Your task to perform on an android device: Open sound settings Image 0: 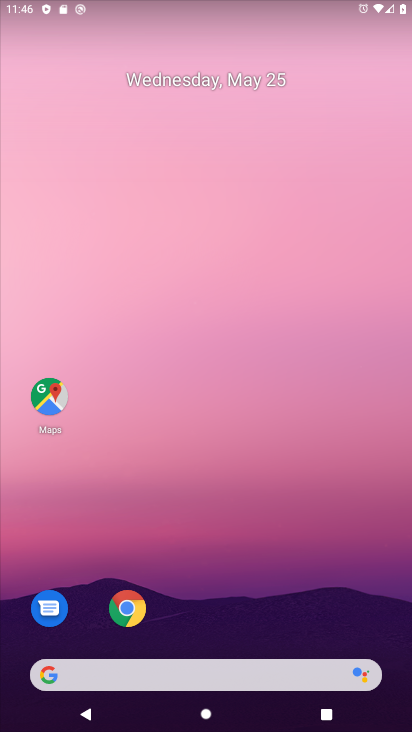
Step 0: drag from (230, 723) to (235, 0)
Your task to perform on an android device: Open sound settings Image 1: 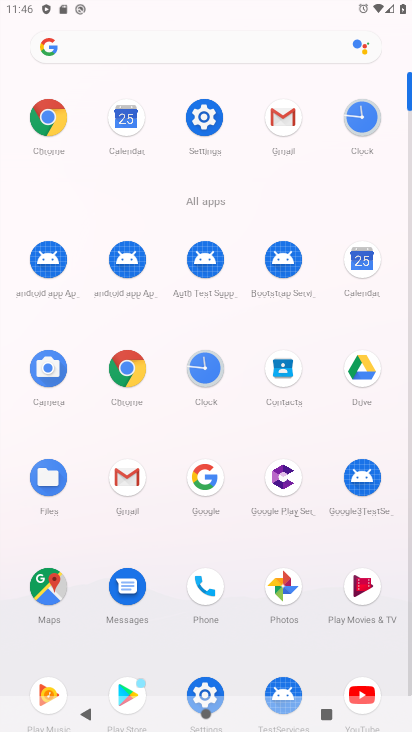
Step 1: click (202, 117)
Your task to perform on an android device: Open sound settings Image 2: 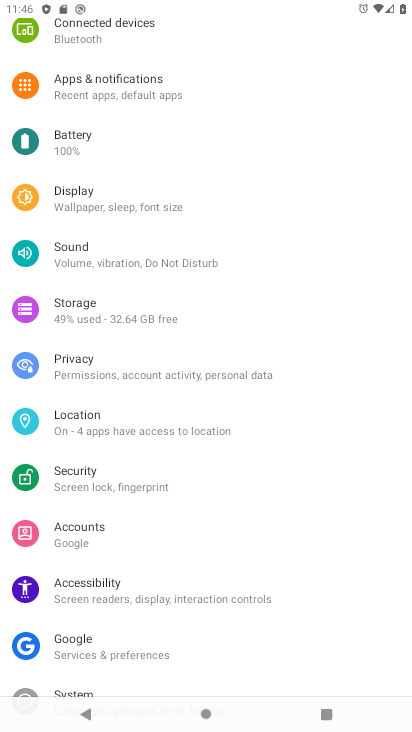
Step 2: click (84, 260)
Your task to perform on an android device: Open sound settings Image 3: 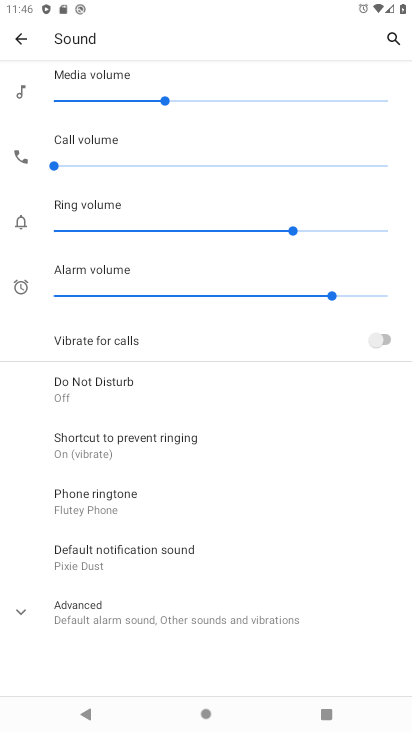
Step 3: task complete